Your task to perform on an android device: Open Google Image 0: 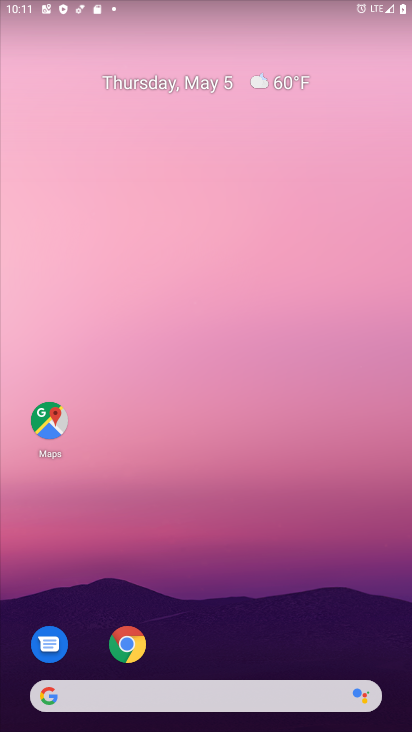
Step 0: drag from (243, 595) to (240, 106)
Your task to perform on an android device: Open Google Image 1: 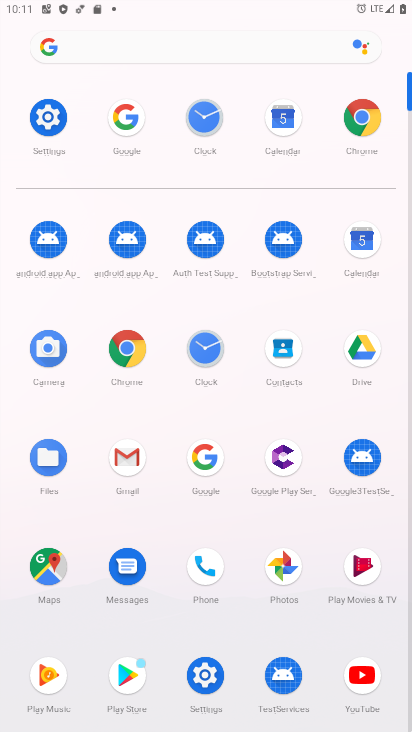
Step 1: click (210, 458)
Your task to perform on an android device: Open Google Image 2: 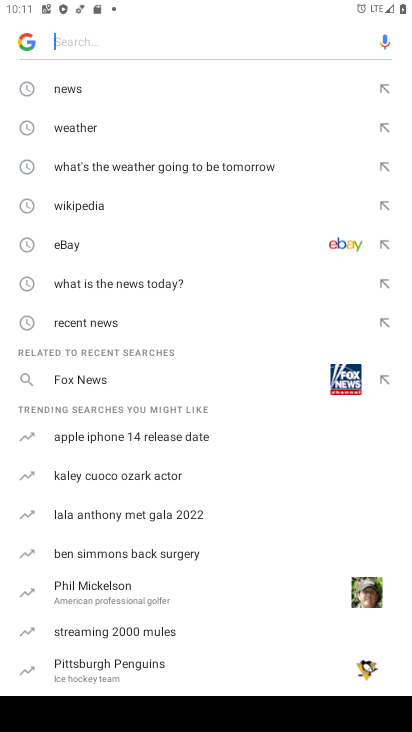
Step 2: task complete